Your task to perform on an android device: Add "logitech g502" to the cart on costco.com, then select checkout. Image 0: 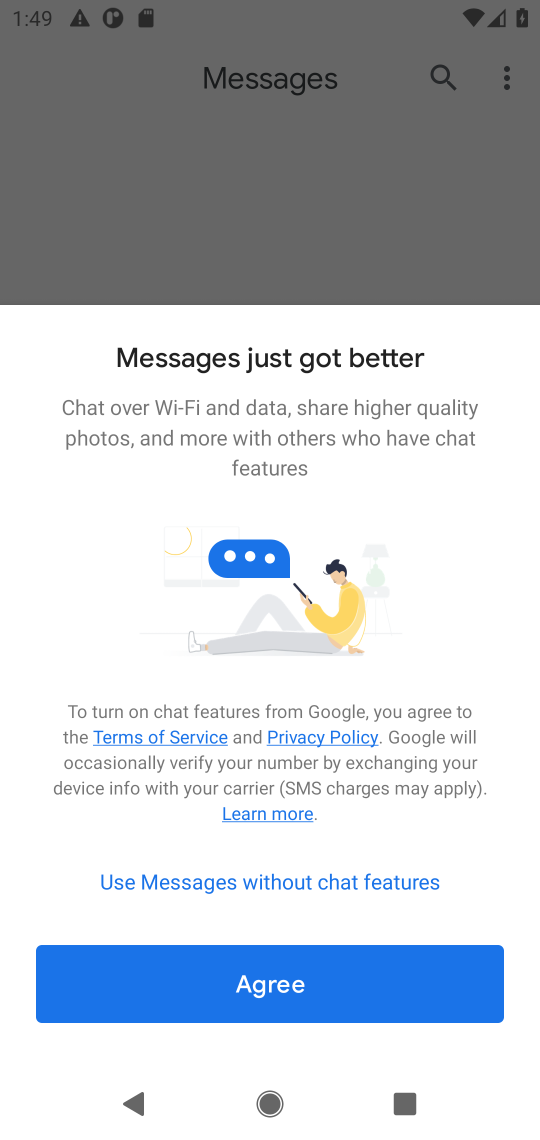
Step 0: press home button
Your task to perform on an android device: Add "logitech g502" to the cart on costco.com, then select checkout. Image 1: 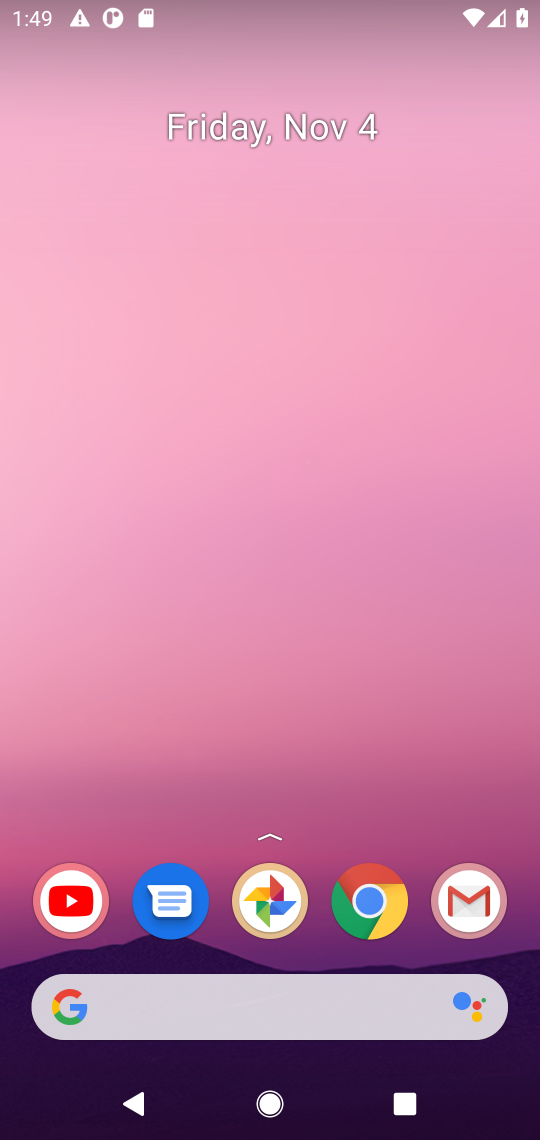
Step 1: click (371, 907)
Your task to perform on an android device: Add "logitech g502" to the cart on costco.com, then select checkout. Image 2: 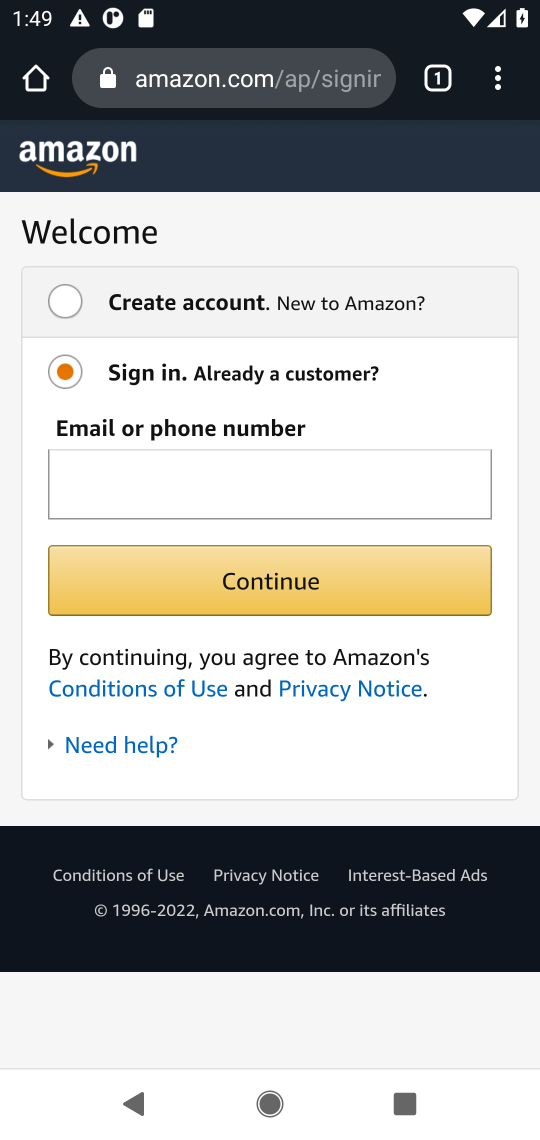
Step 2: click (216, 87)
Your task to perform on an android device: Add "logitech g502" to the cart on costco.com, then select checkout. Image 3: 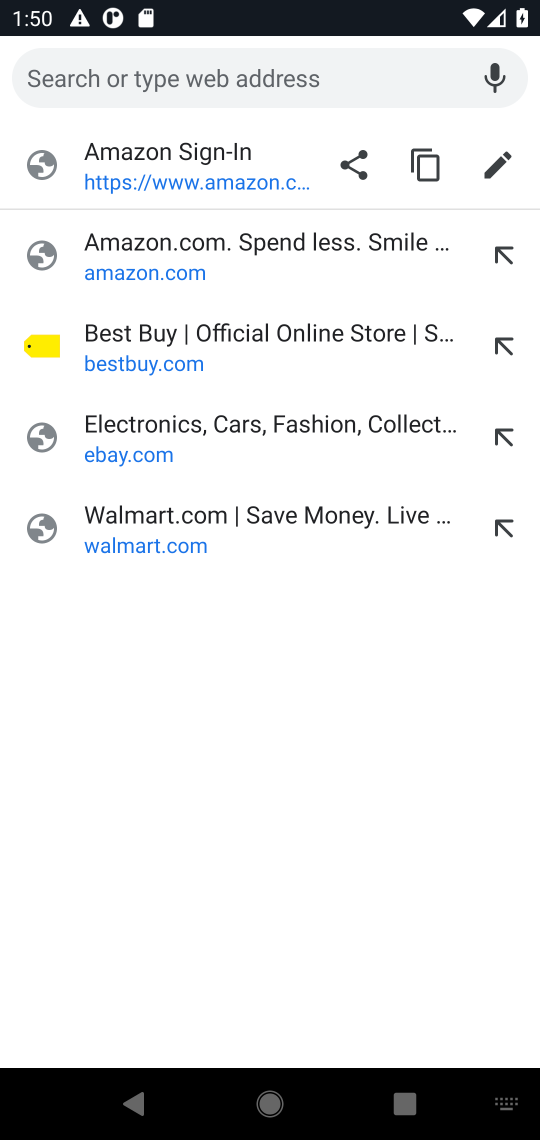
Step 3: type "costco.com"
Your task to perform on an android device: Add "logitech g502" to the cart on costco.com, then select checkout. Image 4: 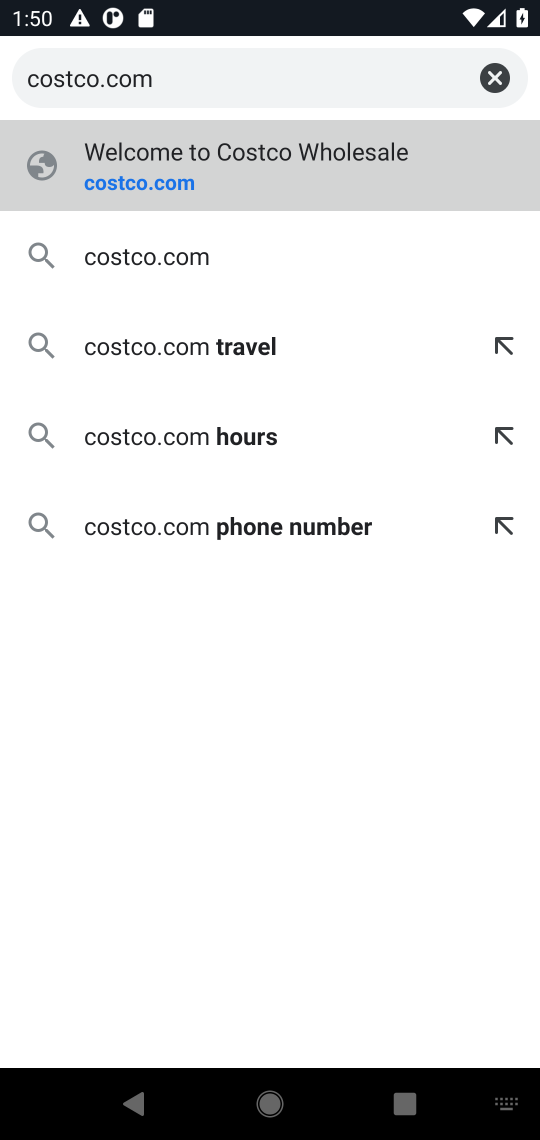
Step 4: press enter
Your task to perform on an android device: Add "logitech g502" to the cart on costco.com, then select checkout. Image 5: 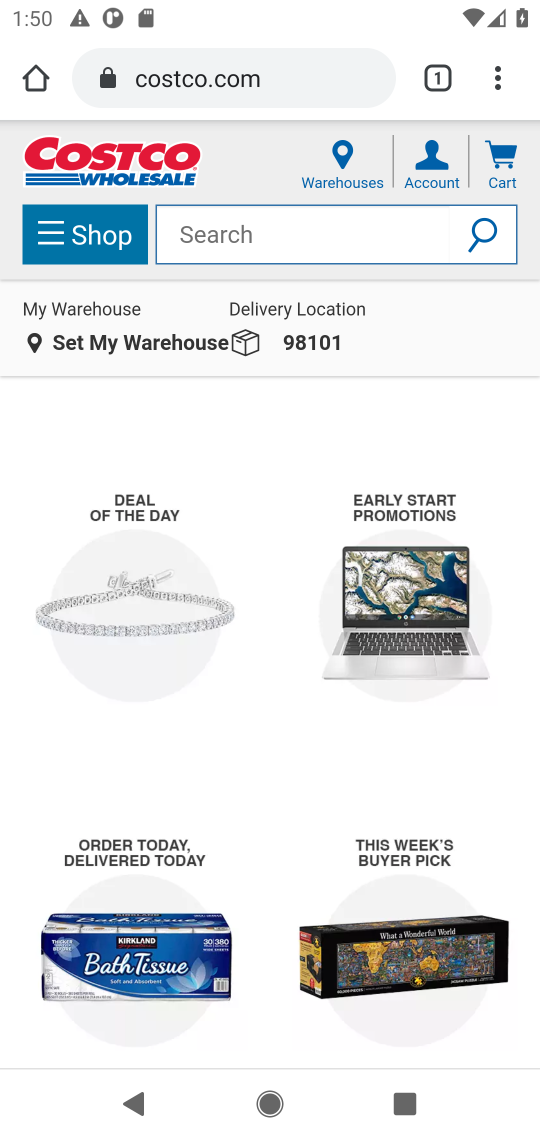
Step 5: click (253, 238)
Your task to perform on an android device: Add "logitech g502" to the cart on costco.com, then select checkout. Image 6: 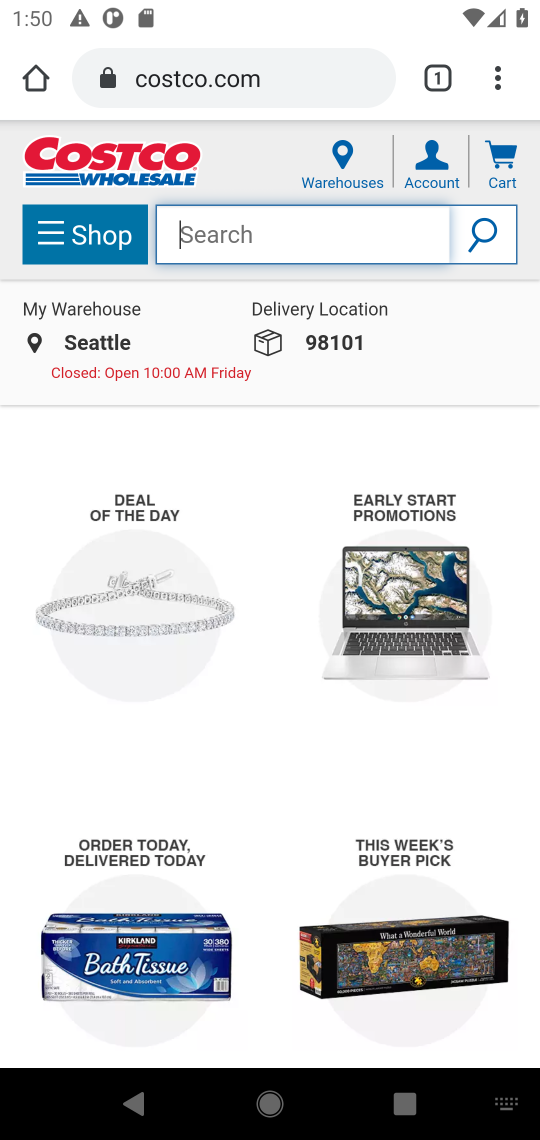
Step 6: click (334, 228)
Your task to perform on an android device: Add "logitech g502" to the cart on costco.com, then select checkout. Image 7: 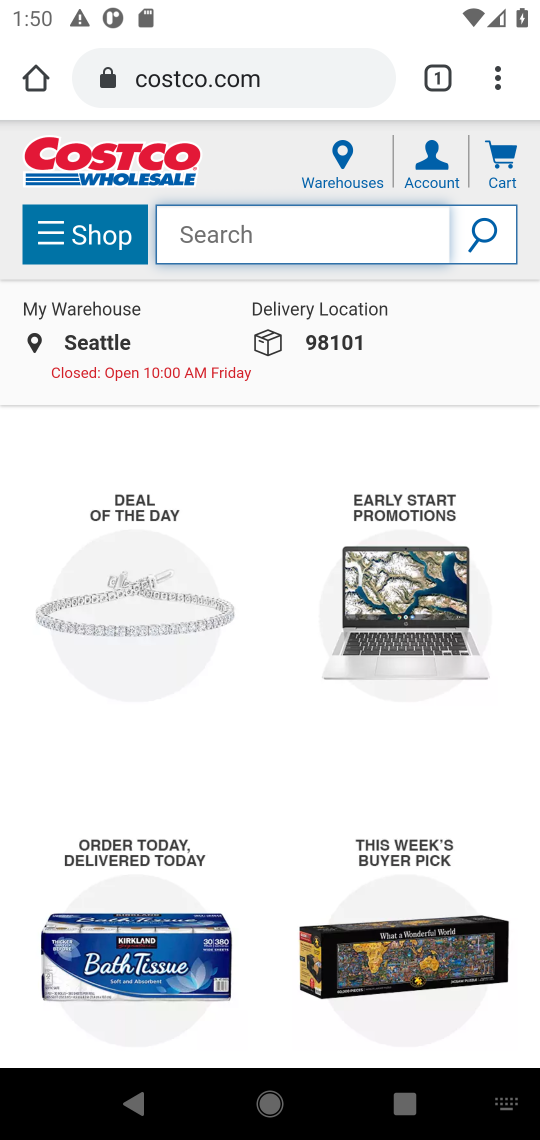
Step 7: type "logitech g502"
Your task to perform on an android device: Add "logitech g502" to the cart on costco.com, then select checkout. Image 8: 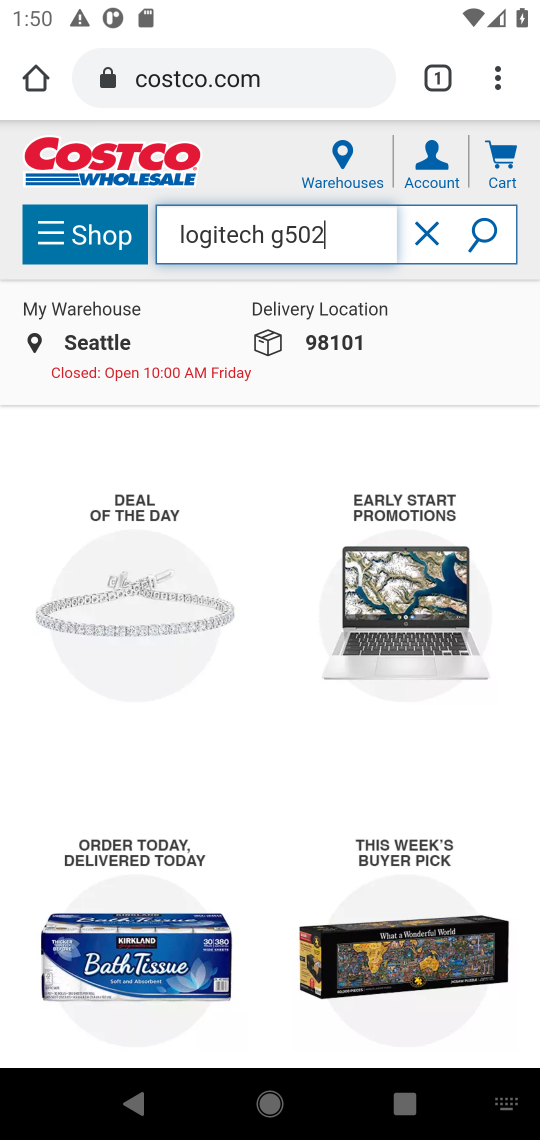
Step 8: press enter
Your task to perform on an android device: Add "logitech g502" to the cart on costco.com, then select checkout. Image 9: 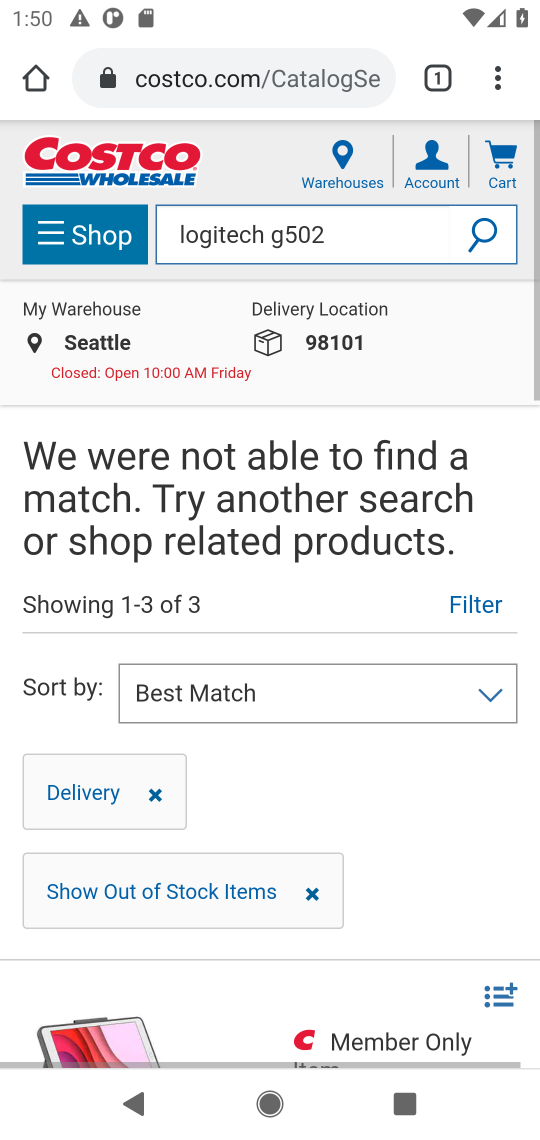
Step 9: task complete